Your task to perform on an android device: Show me popular videos on Youtube Image 0: 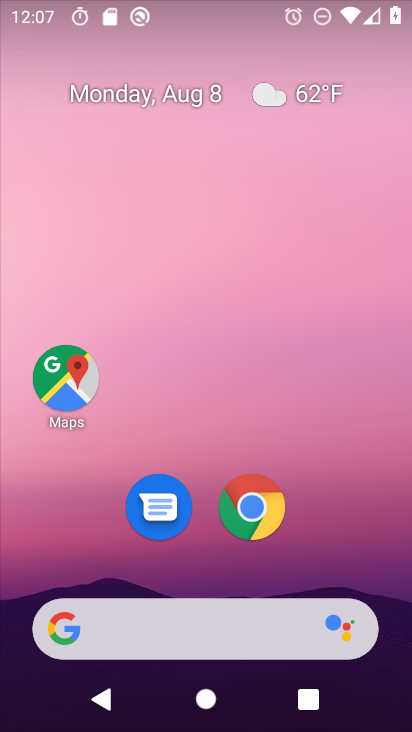
Step 0: drag from (326, 223) to (292, 19)
Your task to perform on an android device: Show me popular videos on Youtube Image 1: 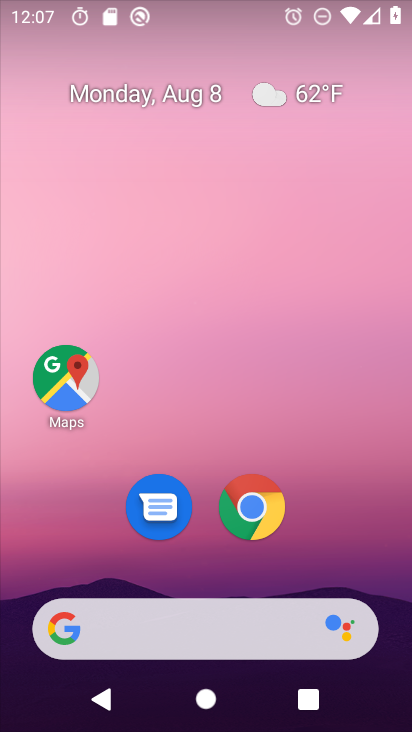
Step 1: drag from (355, 510) to (335, 20)
Your task to perform on an android device: Show me popular videos on Youtube Image 2: 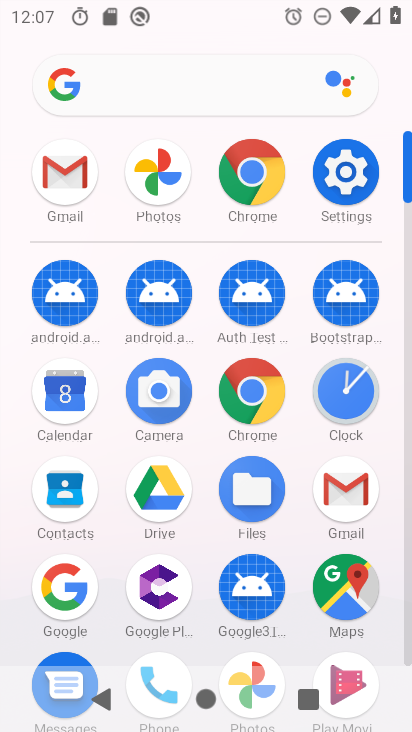
Step 2: drag from (281, 539) to (313, 130)
Your task to perform on an android device: Show me popular videos on Youtube Image 3: 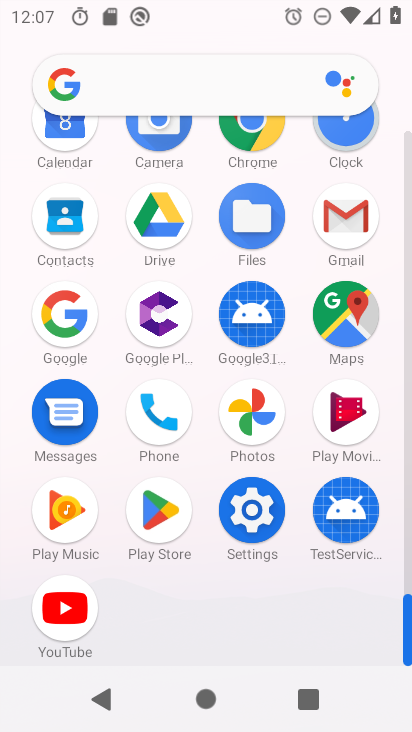
Step 3: click (59, 613)
Your task to perform on an android device: Show me popular videos on Youtube Image 4: 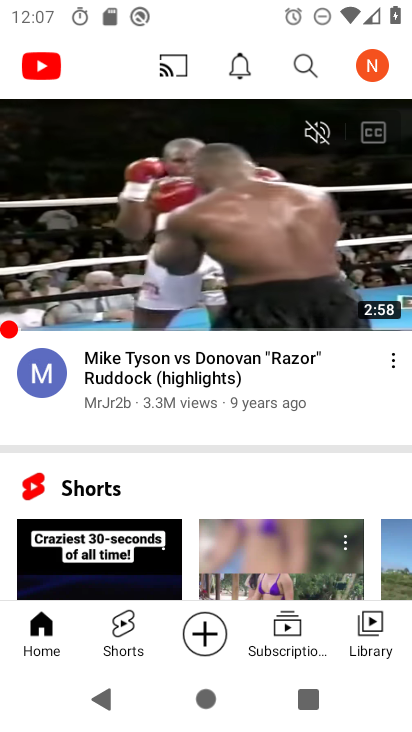
Step 4: click (35, 637)
Your task to perform on an android device: Show me popular videos on Youtube Image 5: 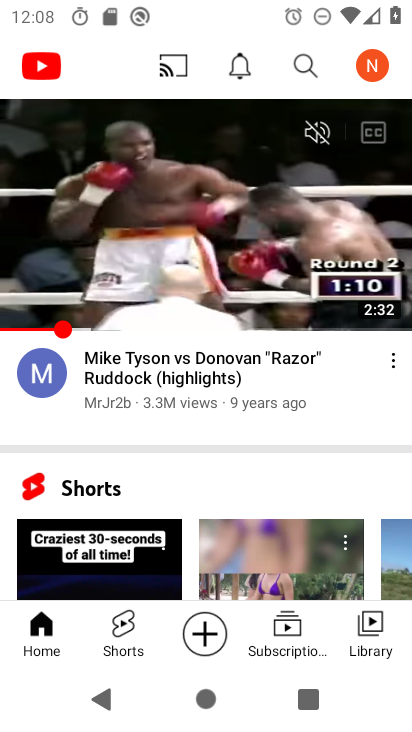
Step 5: click (47, 54)
Your task to perform on an android device: Show me popular videos on Youtube Image 6: 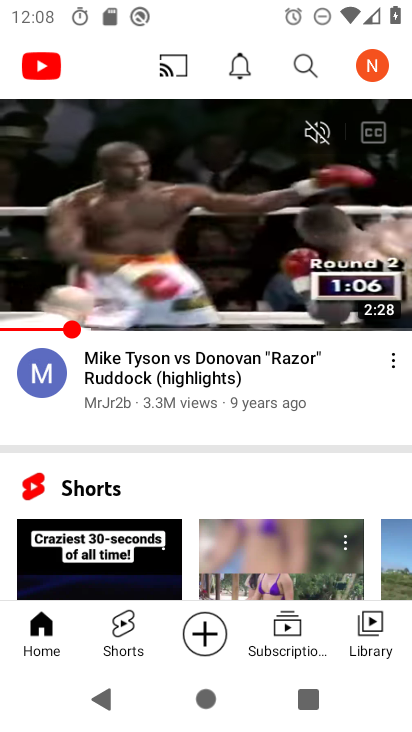
Step 6: click (50, 645)
Your task to perform on an android device: Show me popular videos on Youtube Image 7: 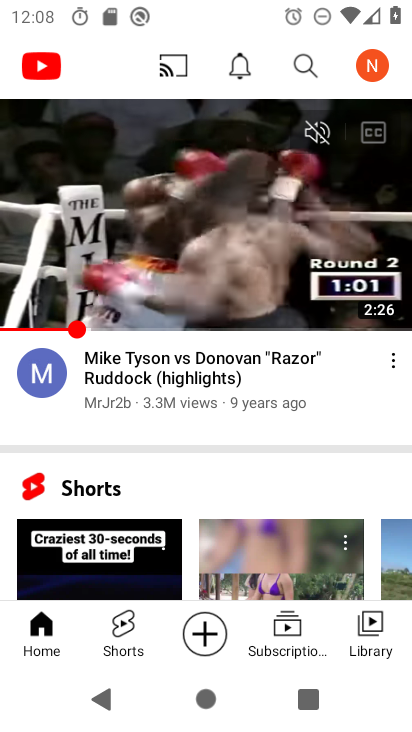
Step 7: drag from (166, 138) to (158, 593)
Your task to perform on an android device: Show me popular videos on Youtube Image 8: 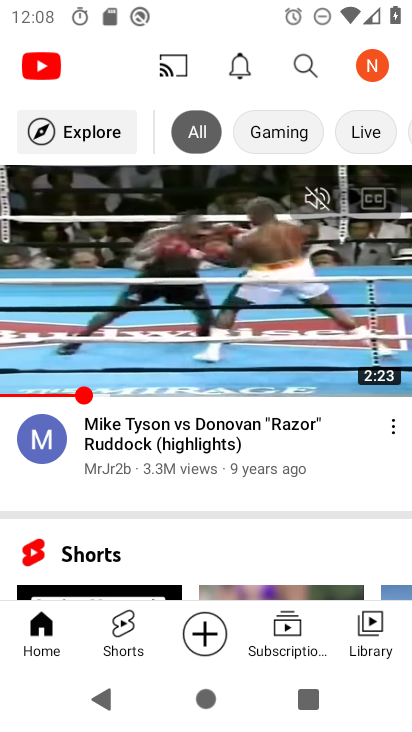
Step 8: click (87, 137)
Your task to perform on an android device: Show me popular videos on Youtube Image 9: 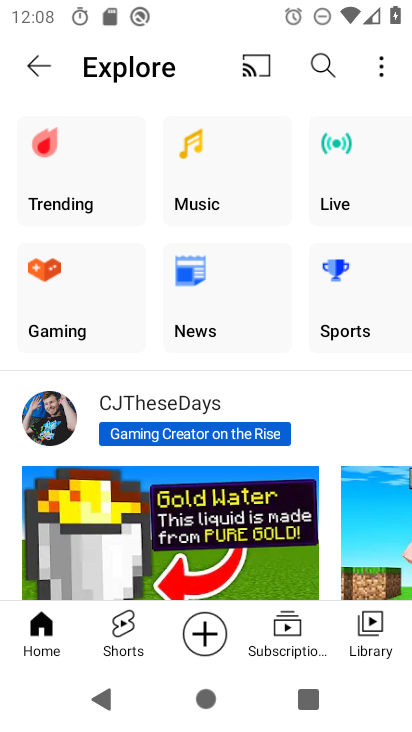
Step 9: task complete